Your task to perform on an android device: check google app version Image 0: 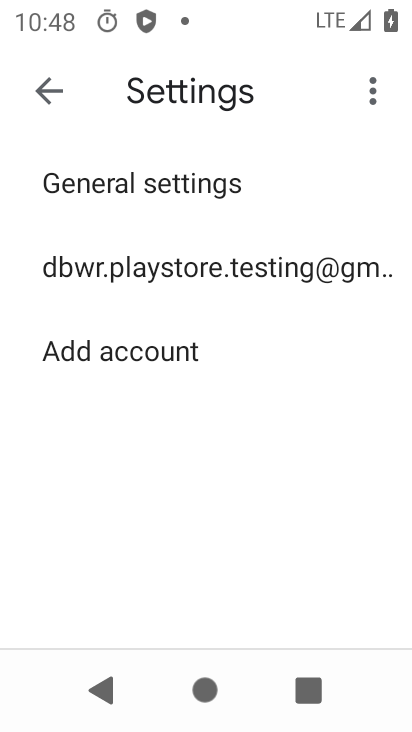
Step 0: press home button
Your task to perform on an android device: check google app version Image 1: 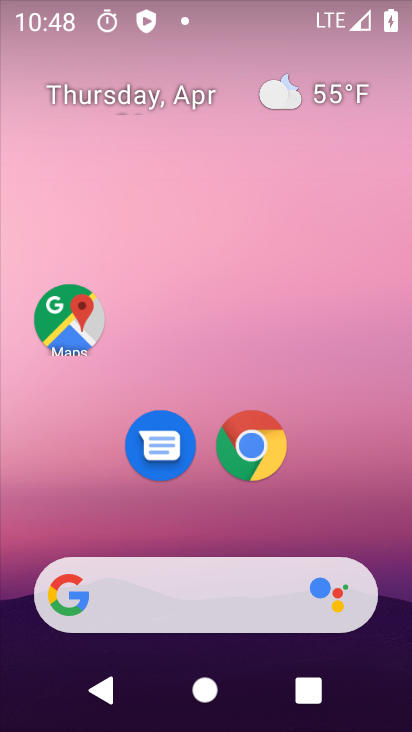
Step 1: drag from (373, 545) to (308, 4)
Your task to perform on an android device: check google app version Image 2: 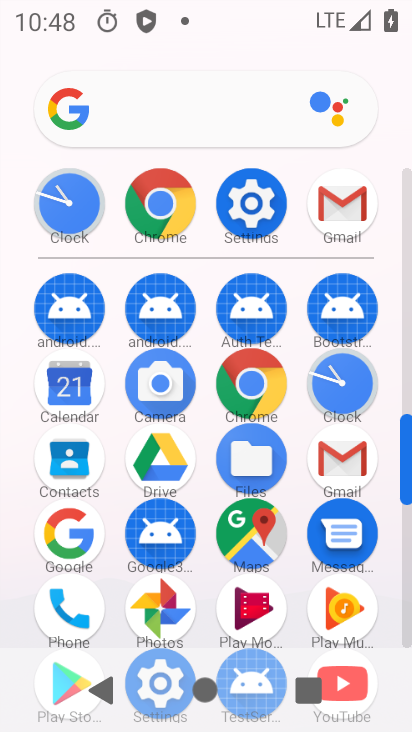
Step 2: click (68, 542)
Your task to perform on an android device: check google app version Image 3: 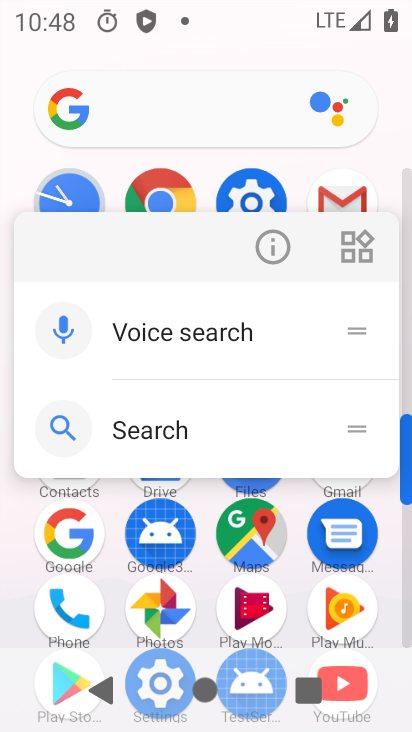
Step 3: click (271, 252)
Your task to perform on an android device: check google app version Image 4: 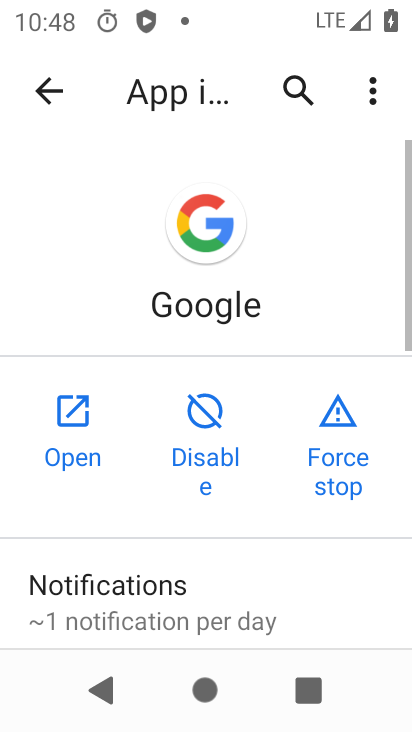
Step 4: drag from (248, 573) to (247, 141)
Your task to perform on an android device: check google app version Image 5: 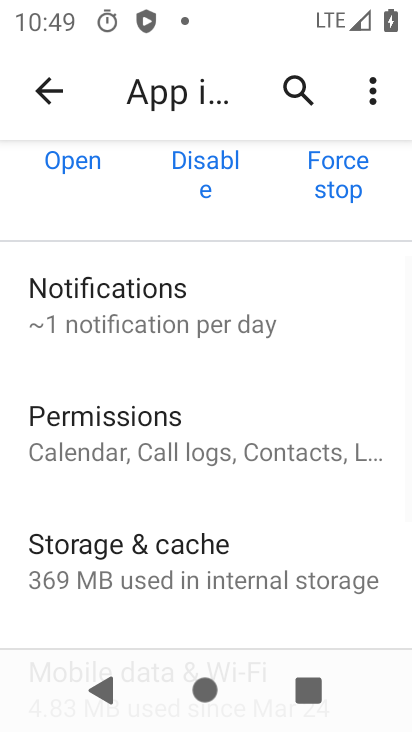
Step 5: drag from (230, 492) to (202, 112)
Your task to perform on an android device: check google app version Image 6: 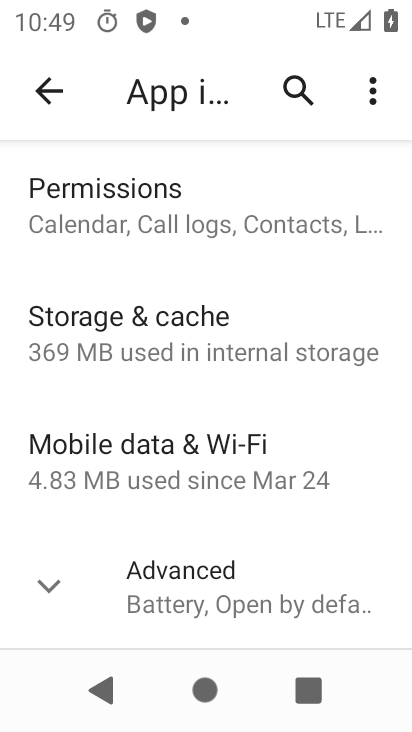
Step 6: click (47, 601)
Your task to perform on an android device: check google app version Image 7: 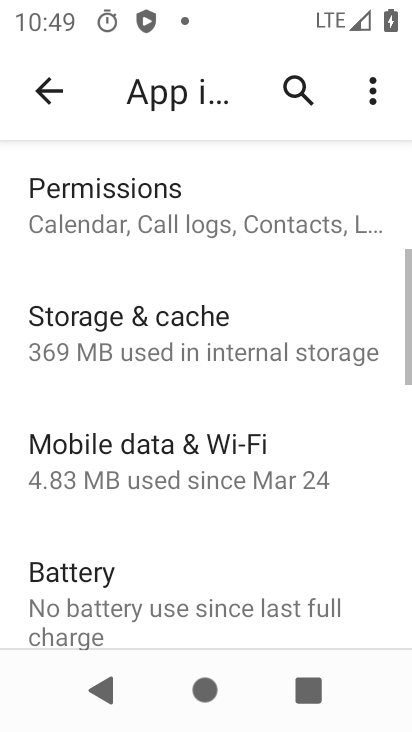
Step 7: task complete